Your task to perform on an android device: Open Reddit.com Image 0: 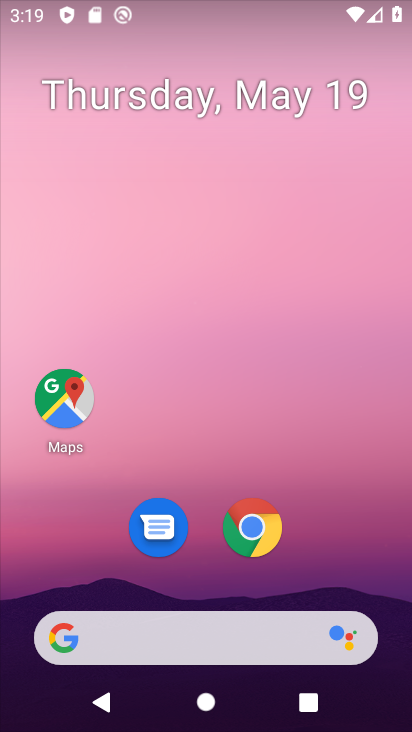
Step 0: drag from (321, 394) to (318, 185)
Your task to perform on an android device: Open Reddit.com Image 1: 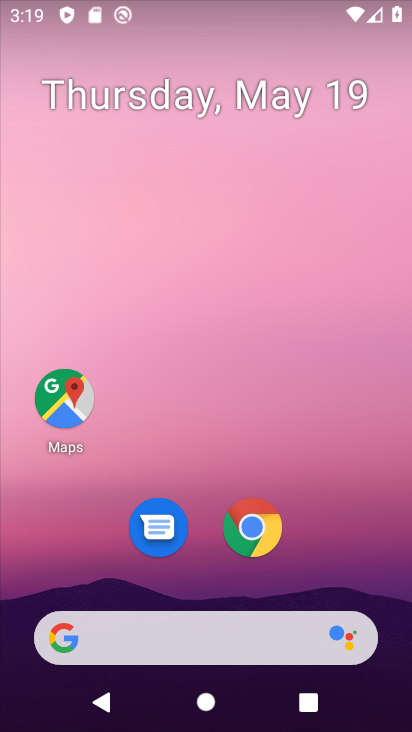
Step 1: drag from (333, 535) to (333, 111)
Your task to perform on an android device: Open Reddit.com Image 2: 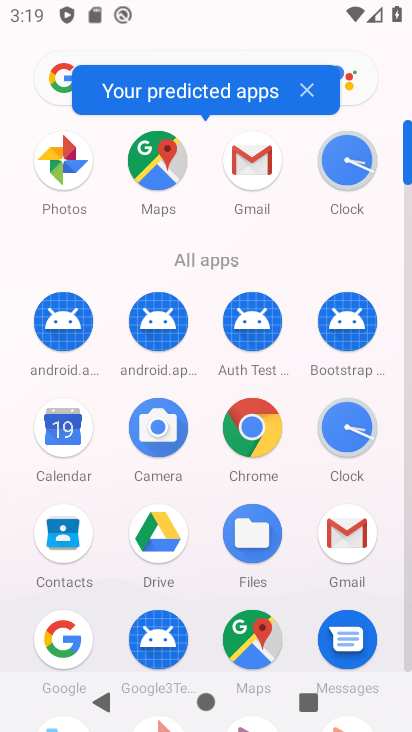
Step 2: drag from (286, 553) to (307, 238)
Your task to perform on an android device: Open Reddit.com Image 3: 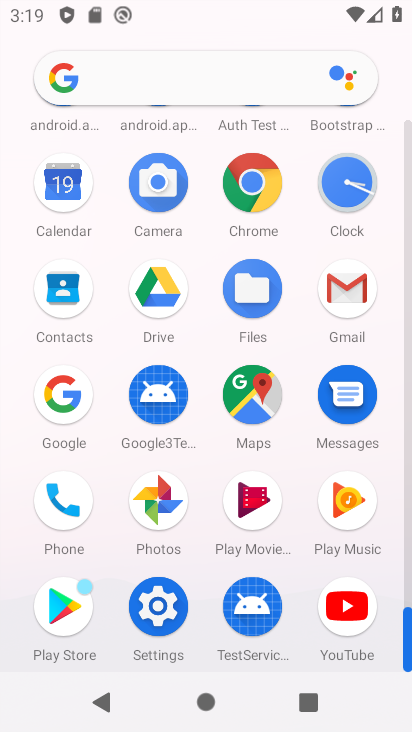
Step 3: click (74, 414)
Your task to perform on an android device: Open Reddit.com Image 4: 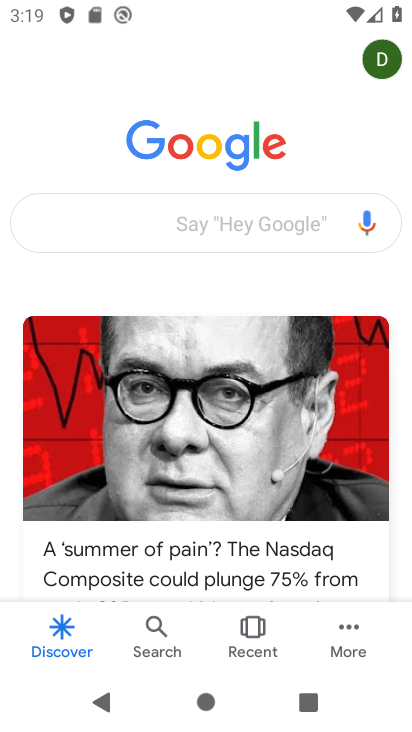
Step 4: click (254, 233)
Your task to perform on an android device: Open Reddit.com Image 5: 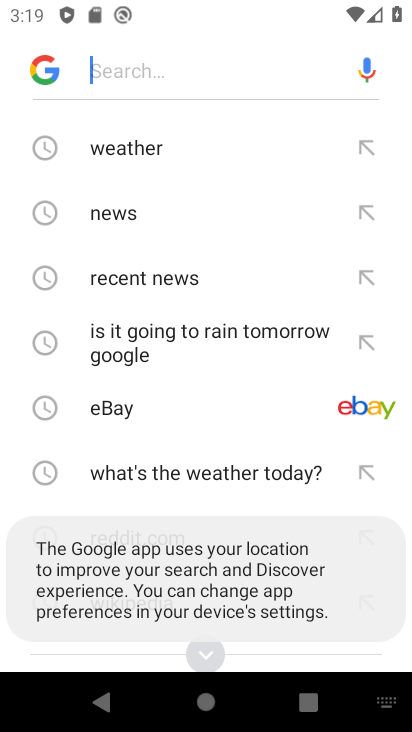
Step 5: drag from (189, 450) to (218, 127)
Your task to perform on an android device: Open Reddit.com Image 6: 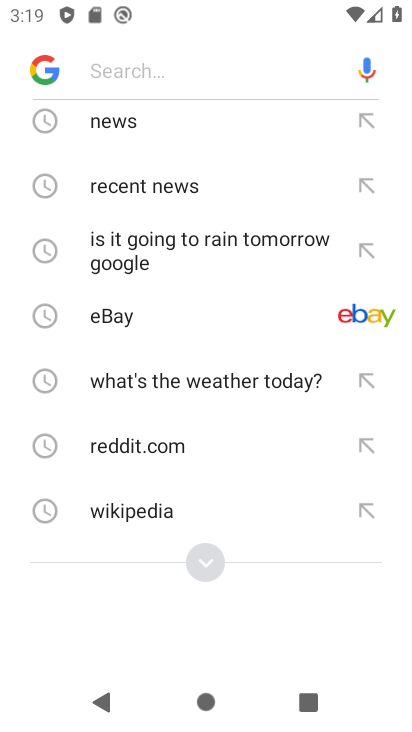
Step 6: click (119, 444)
Your task to perform on an android device: Open Reddit.com Image 7: 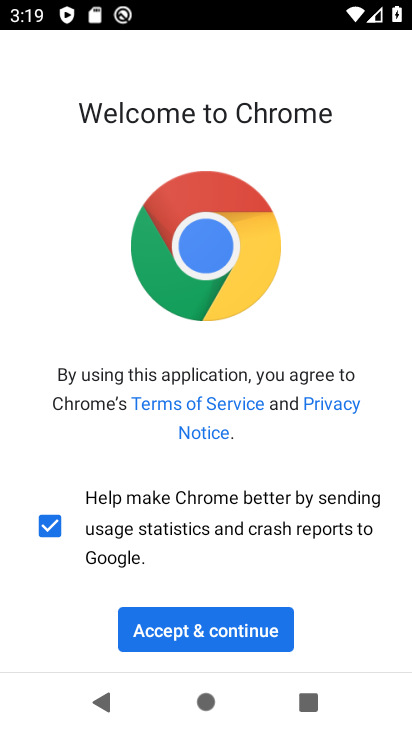
Step 7: click (233, 644)
Your task to perform on an android device: Open Reddit.com Image 8: 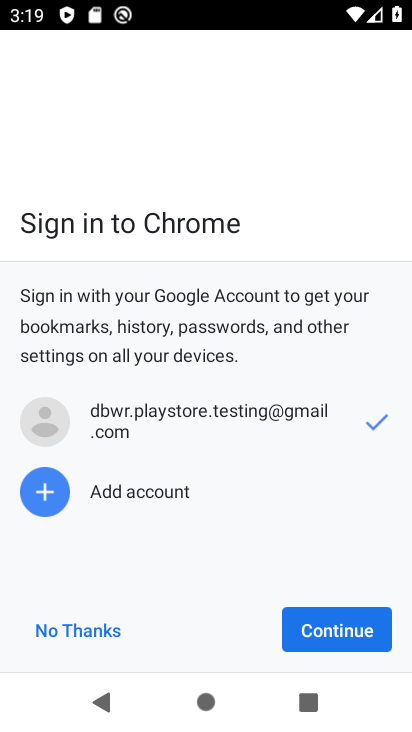
Step 8: click (307, 637)
Your task to perform on an android device: Open Reddit.com Image 9: 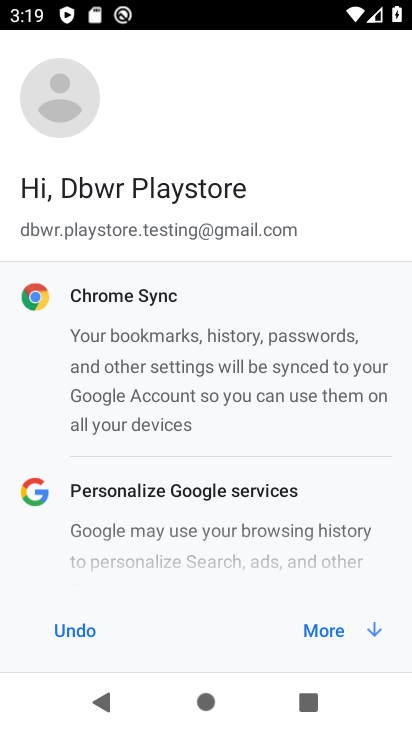
Step 9: click (305, 636)
Your task to perform on an android device: Open Reddit.com Image 10: 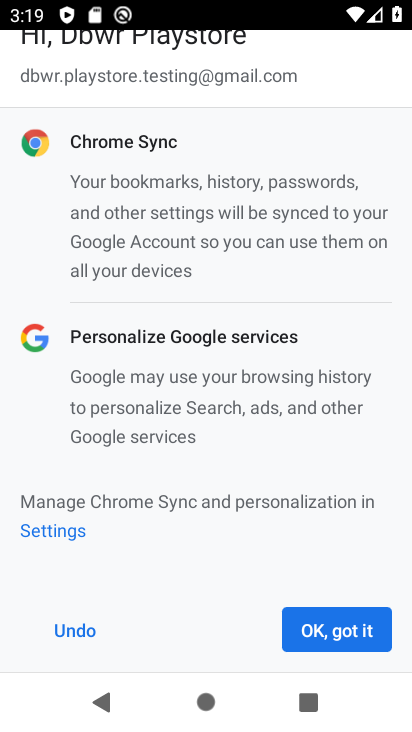
Step 10: click (305, 636)
Your task to perform on an android device: Open Reddit.com Image 11: 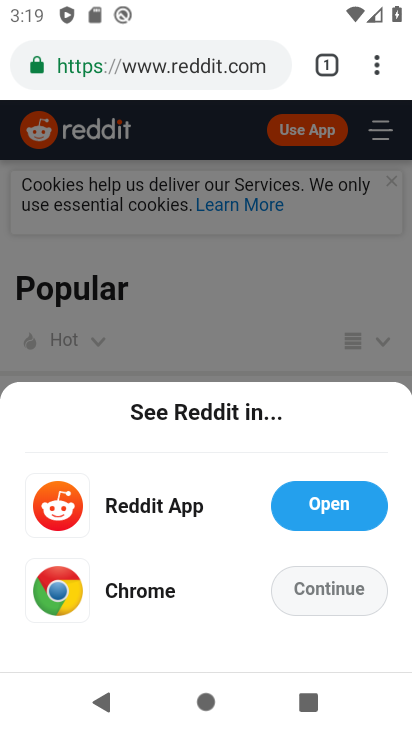
Step 11: task complete